Your task to perform on an android device: check battery use Image 0: 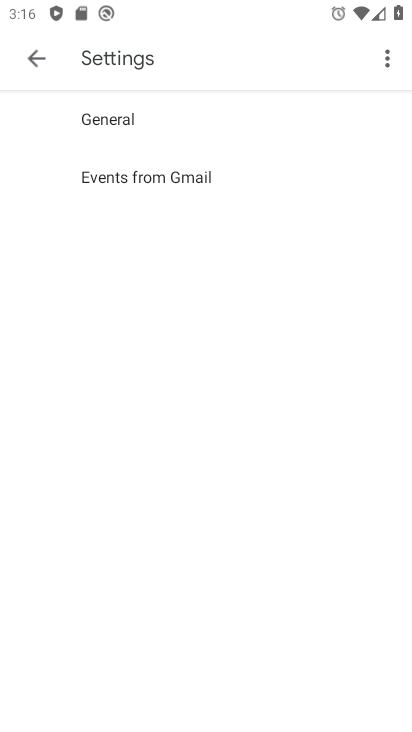
Step 0: press home button
Your task to perform on an android device: check battery use Image 1: 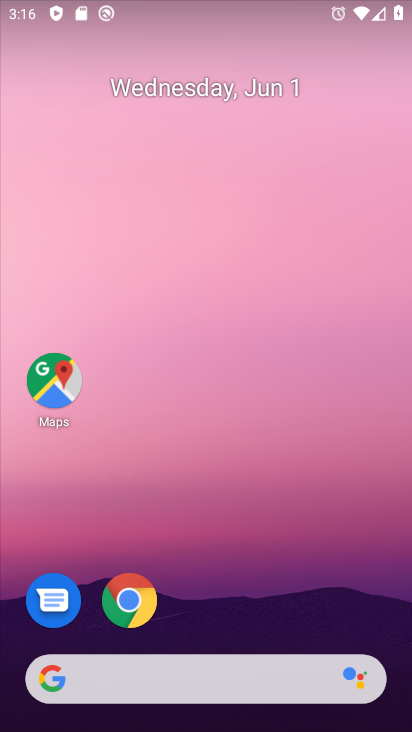
Step 1: drag from (231, 563) to (234, 181)
Your task to perform on an android device: check battery use Image 2: 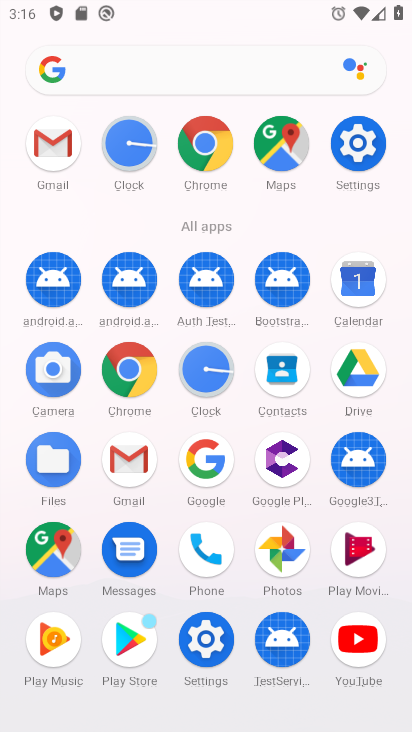
Step 2: click (348, 153)
Your task to perform on an android device: check battery use Image 3: 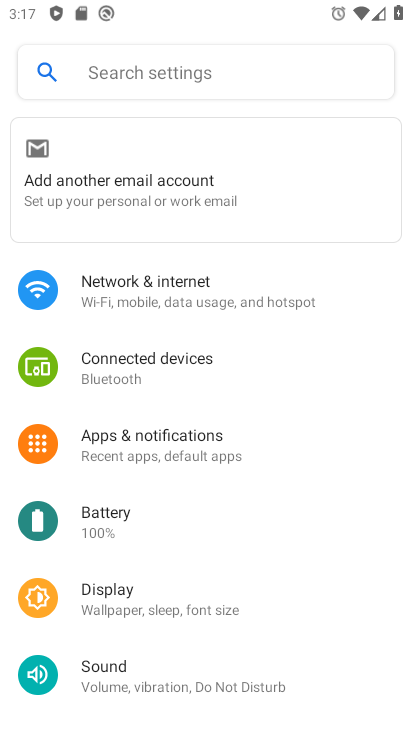
Step 3: click (119, 543)
Your task to perform on an android device: check battery use Image 4: 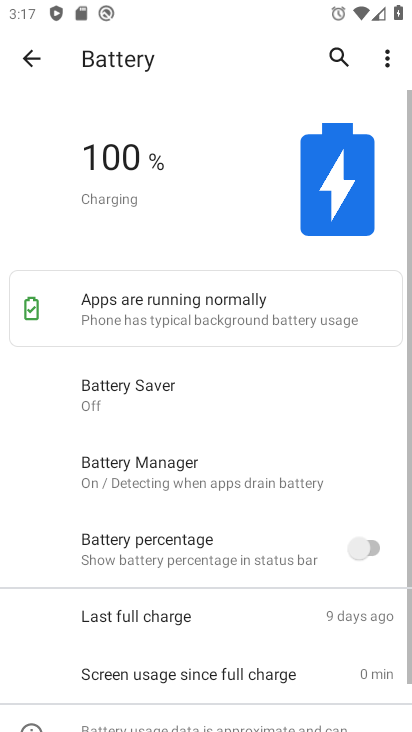
Step 4: task complete